Your task to perform on an android device: check android version Image 0: 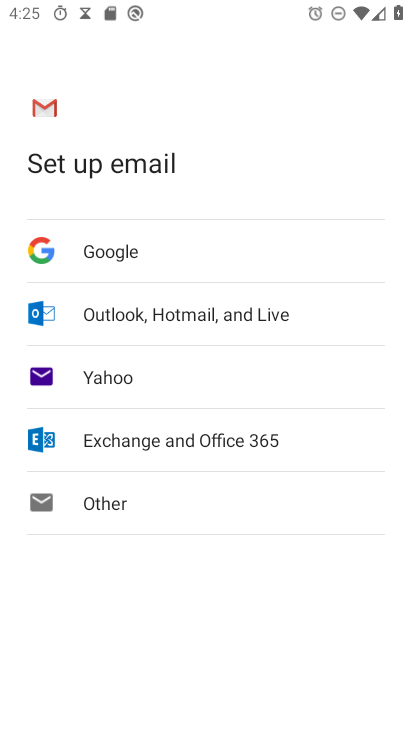
Step 0: press home button
Your task to perform on an android device: check android version Image 1: 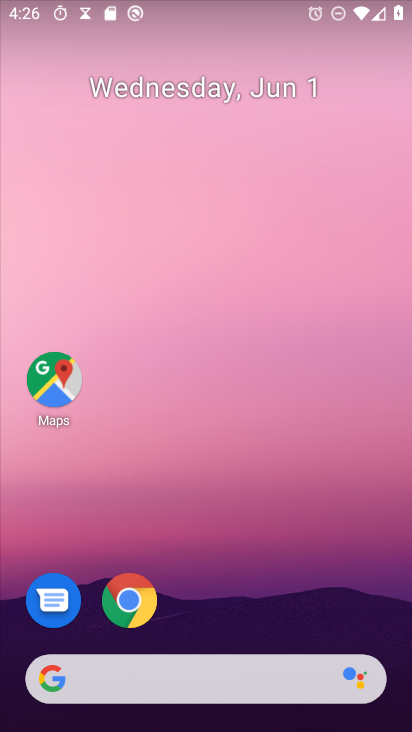
Step 1: drag from (227, 635) to (222, 328)
Your task to perform on an android device: check android version Image 2: 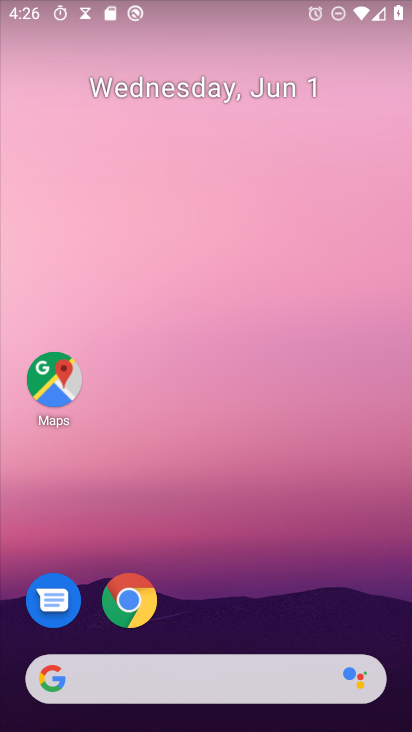
Step 2: drag from (190, 646) to (260, 175)
Your task to perform on an android device: check android version Image 3: 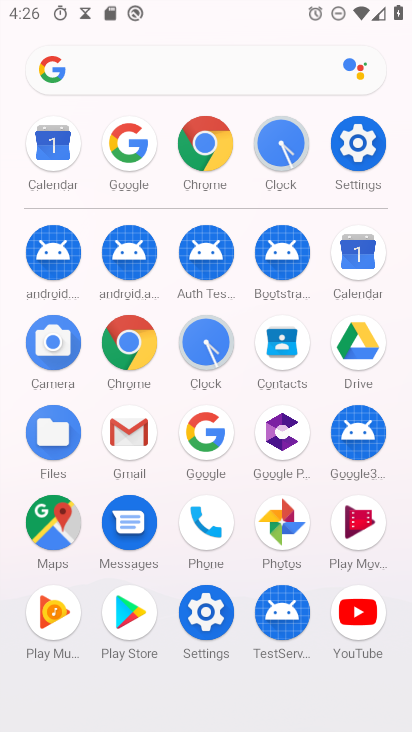
Step 3: click (354, 161)
Your task to perform on an android device: check android version Image 4: 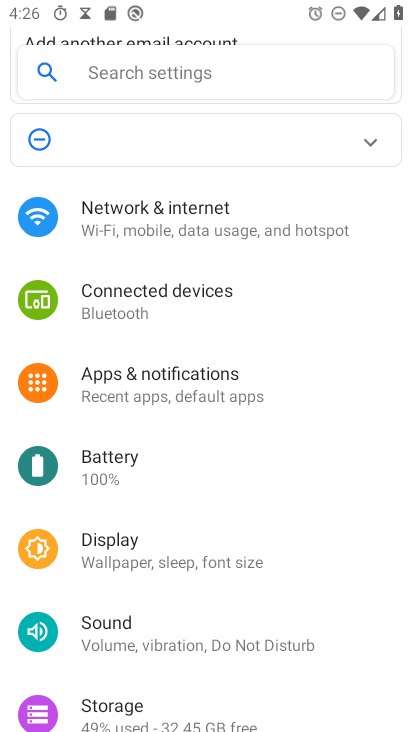
Step 4: click (173, 234)
Your task to perform on an android device: check android version Image 5: 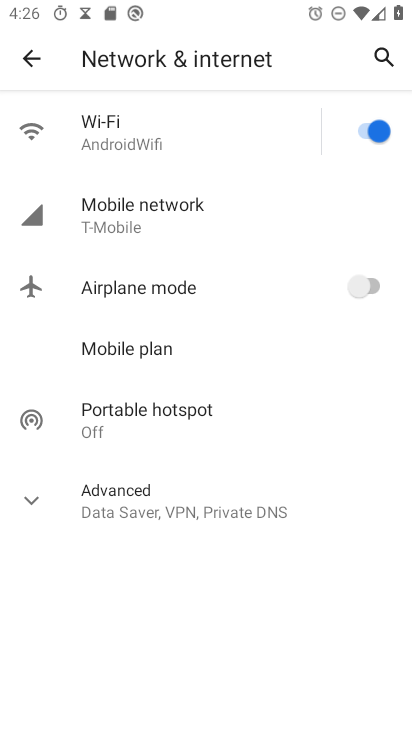
Step 5: press back button
Your task to perform on an android device: check android version Image 6: 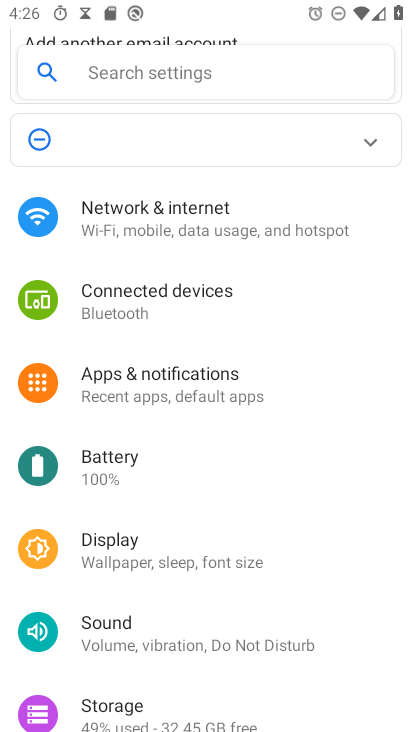
Step 6: drag from (188, 656) to (215, 418)
Your task to perform on an android device: check android version Image 7: 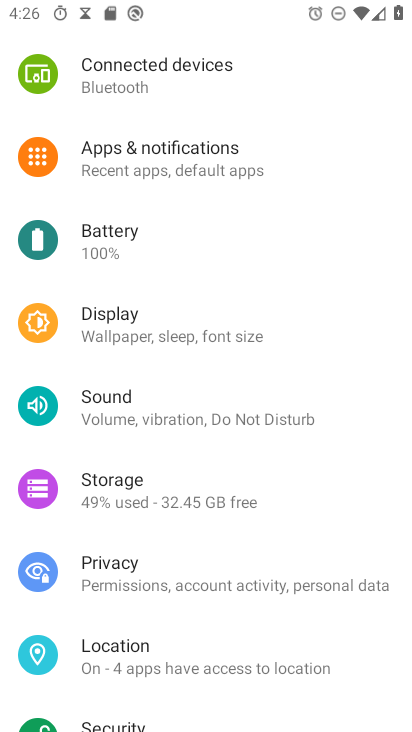
Step 7: drag from (180, 647) to (264, 292)
Your task to perform on an android device: check android version Image 8: 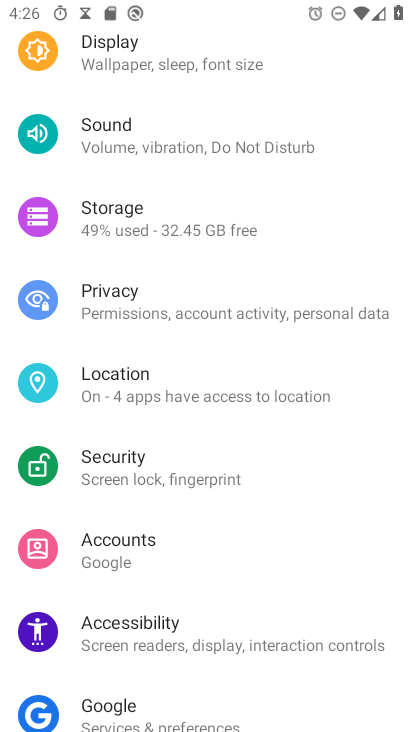
Step 8: drag from (174, 642) to (249, 213)
Your task to perform on an android device: check android version Image 9: 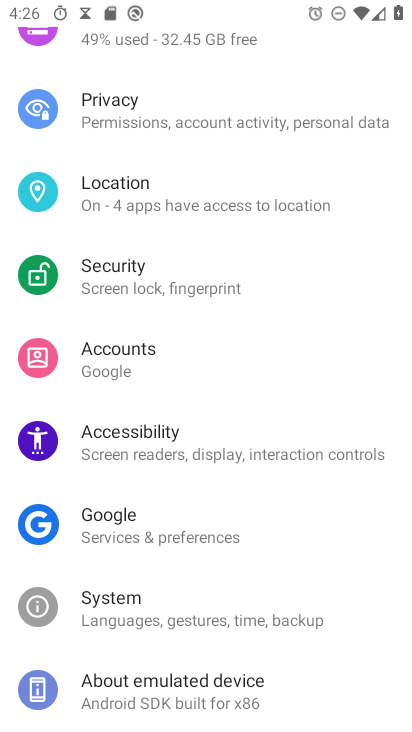
Step 9: click (175, 690)
Your task to perform on an android device: check android version Image 10: 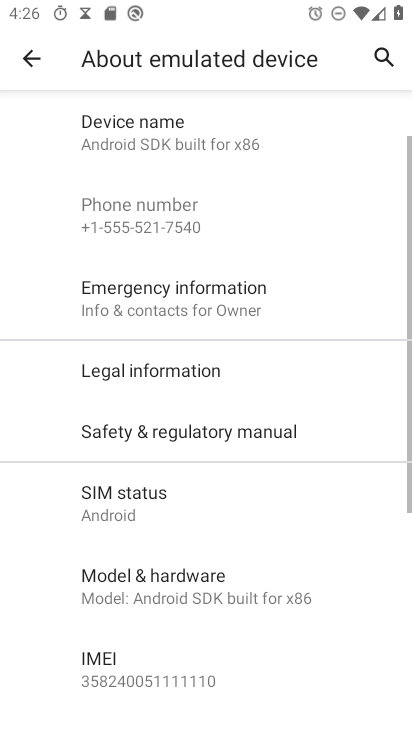
Step 10: drag from (190, 226) to (152, 520)
Your task to perform on an android device: check android version Image 11: 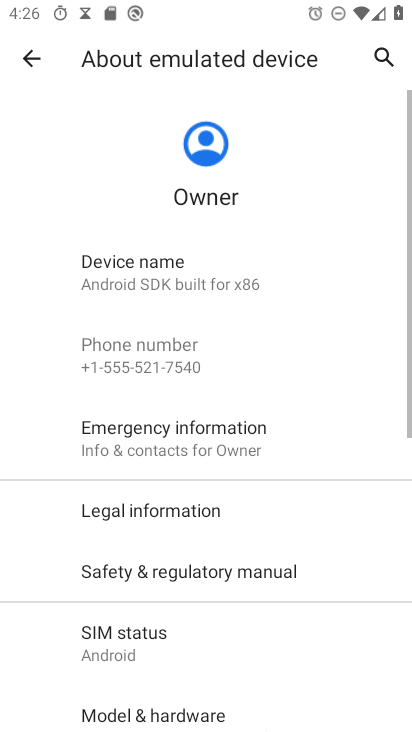
Step 11: drag from (199, 593) to (270, 238)
Your task to perform on an android device: check android version Image 12: 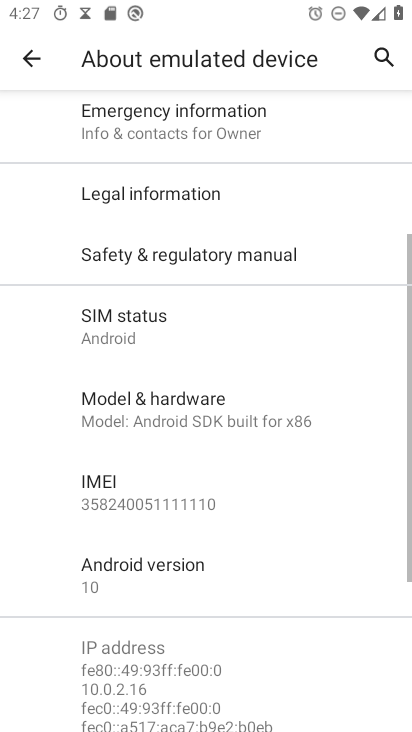
Step 12: click (124, 592)
Your task to perform on an android device: check android version Image 13: 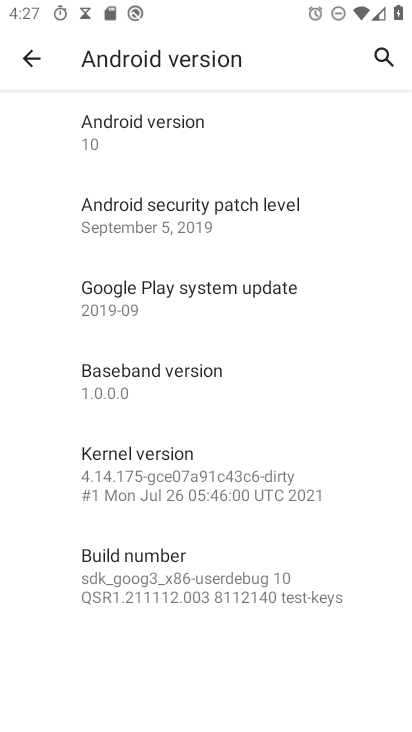
Step 13: task complete